Your task to perform on an android device: turn notification dots on Image 0: 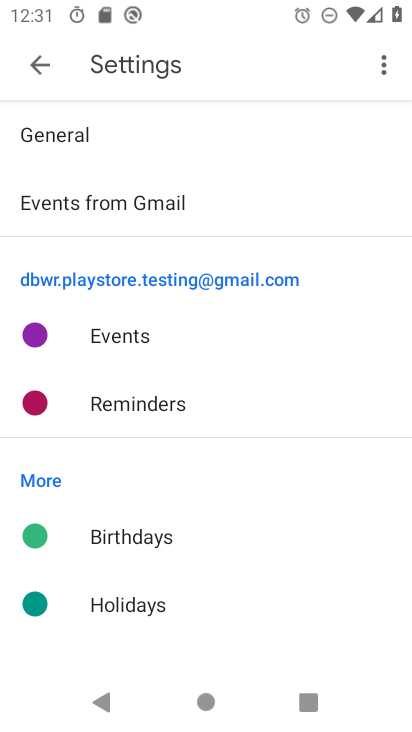
Step 0: press home button
Your task to perform on an android device: turn notification dots on Image 1: 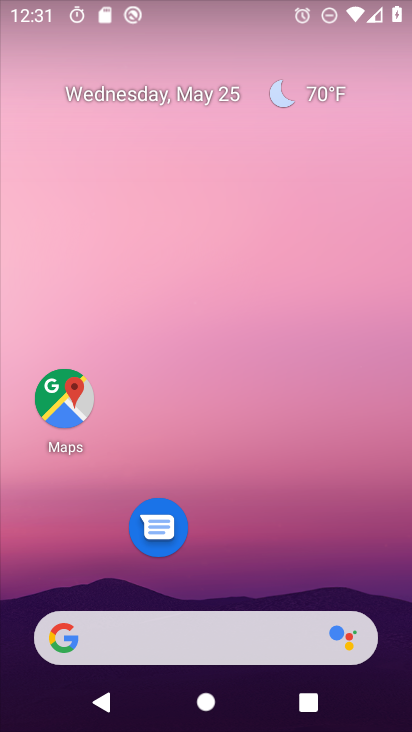
Step 1: drag from (240, 529) to (234, 112)
Your task to perform on an android device: turn notification dots on Image 2: 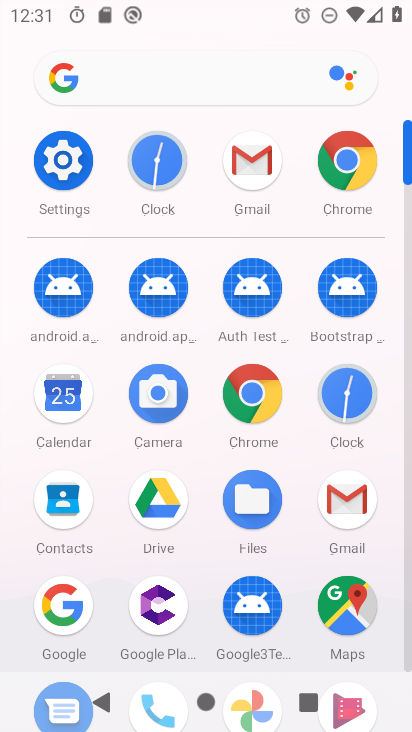
Step 2: click (57, 157)
Your task to perform on an android device: turn notification dots on Image 3: 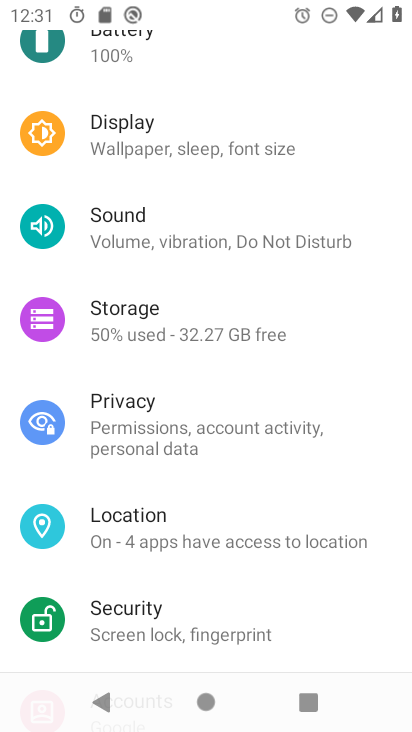
Step 3: drag from (188, 239) to (197, 560)
Your task to perform on an android device: turn notification dots on Image 4: 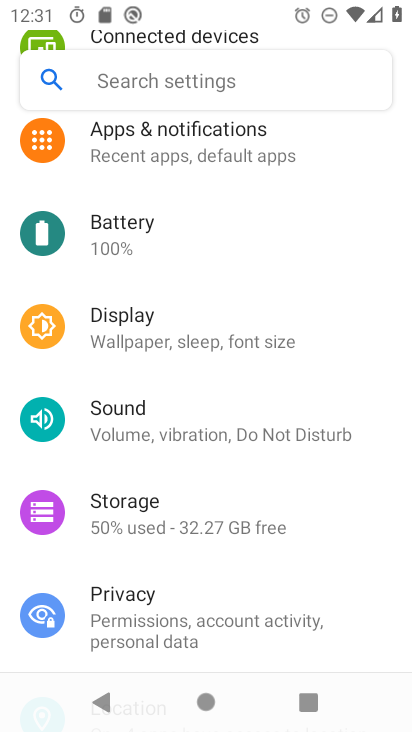
Step 4: click (185, 148)
Your task to perform on an android device: turn notification dots on Image 5: 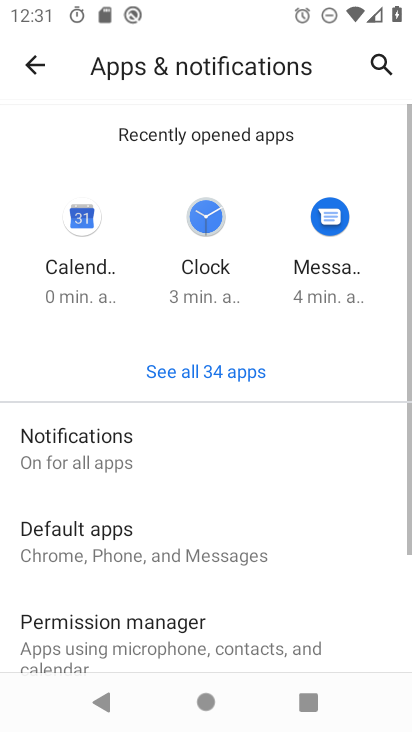
Step 5: click (136, 455)
Your task to perform on an android device: turn notification dots on Image 6: 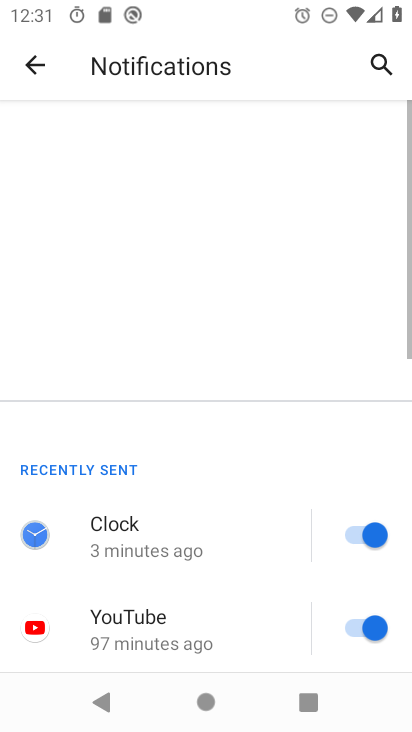
Step 6: drag from (264, 512) to (286, 51)
Your task to perform on an android device: turn notification dots on Image 7: 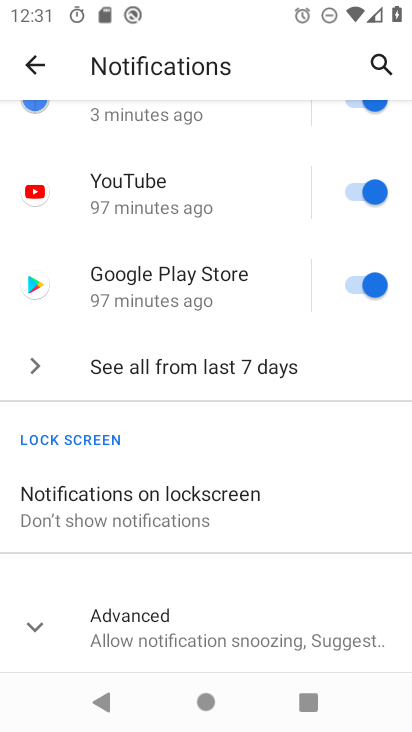
Step 7: click (191, 623)
Your task to perform on an android device: turn notification dots on Image 8: 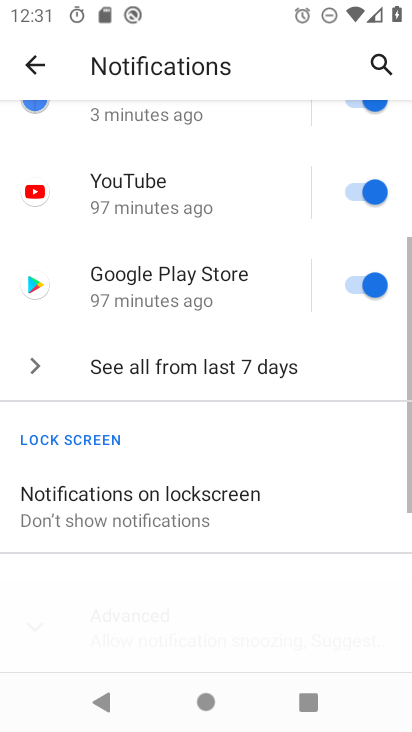
Step 8: task complete